Your task to perform on an android device: Open battery settings Image 0: 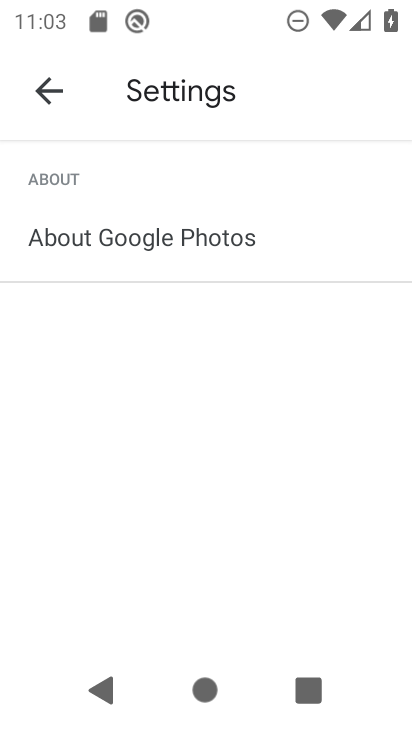
Step 0: press home button
Your task to perform on an android device: Open battery settings Image 1: 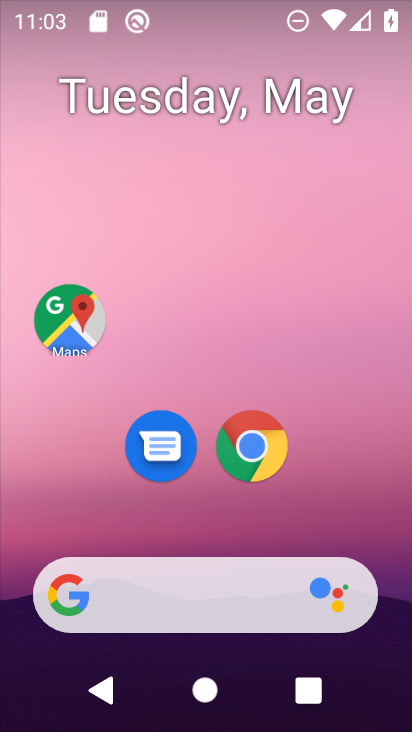
Step 1: drag from (218, 512) to (311, 17)
Your task to perform on an android device: Open battery settings Image 2: 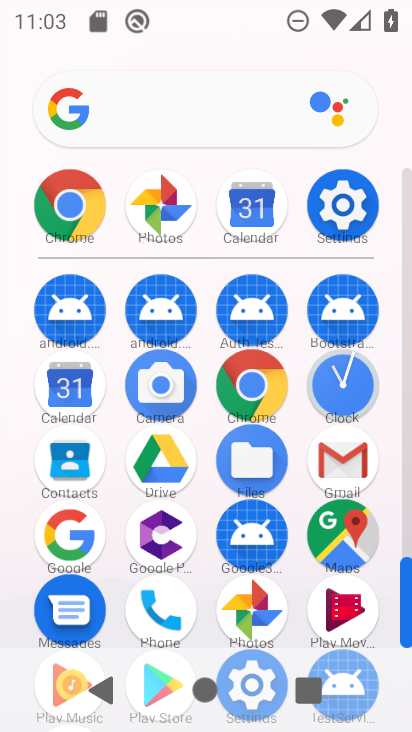
Step 2: click (348, 193)
Your task to perform on an android device: Open battery settings Image 3: 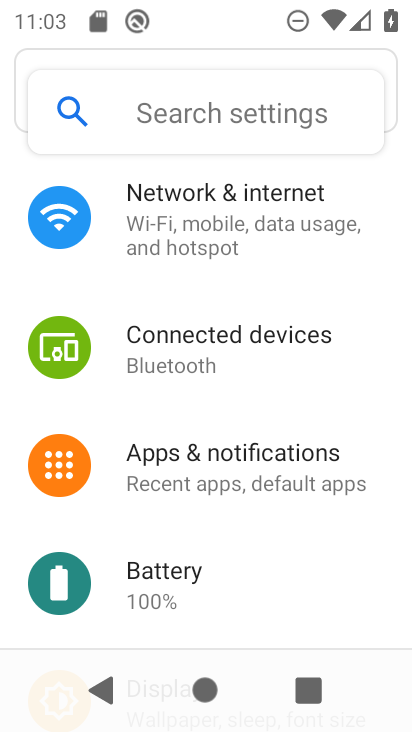
Step 3: click (199, 568)
Your task to perform on an android device: Open battery settings Image 4: 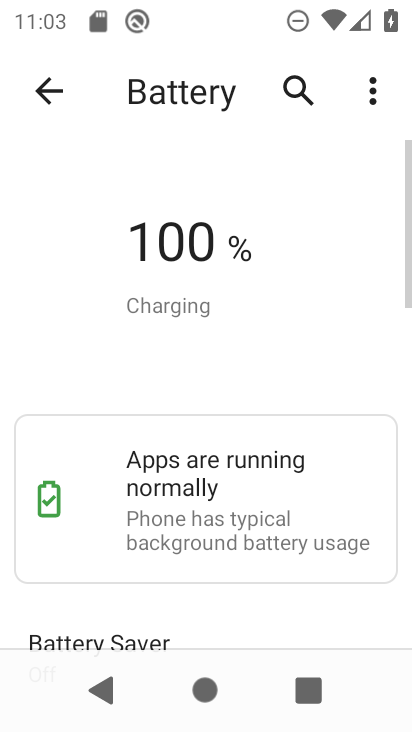
Step 4: task complete